Your task to perform on an android device: turn pop-ups off in chrome Image 0: 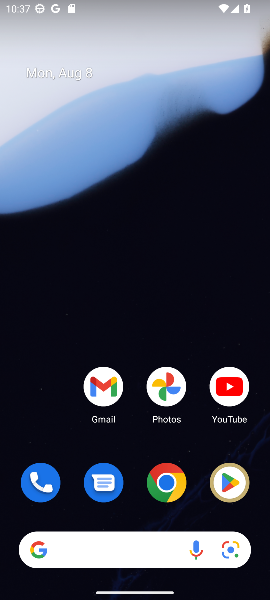
Step 0: click (157, 493)
Your task to perform on an android device: turn pop-ups off in chrome Image 1: 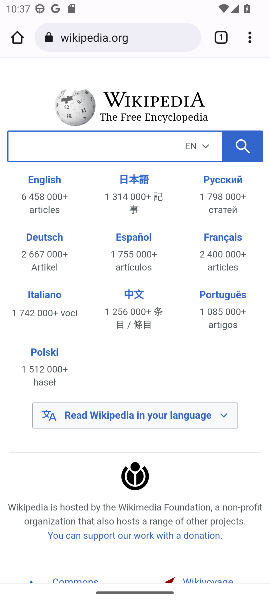
Step 1: click (247, 37)
Your task to perform on an android device: turn pop-ups off in chrome Image 2: 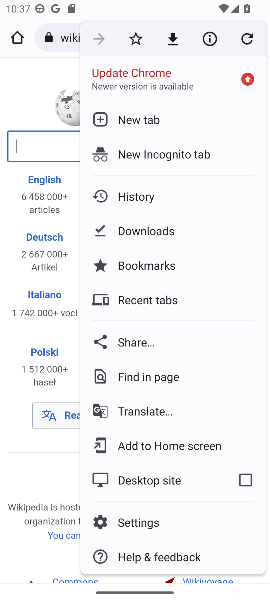
Step 2: click (134, 517)
Your task to perform on an android device: turn pop-ups off in chrome Image 3: 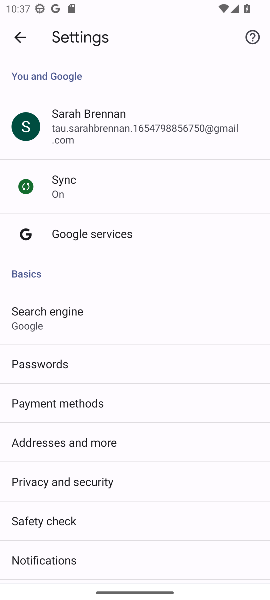
Step 3: drag from (106, 512) to (104, 279)
Your task to perform on an android device: turn pop-ups off in chrome Image 4: 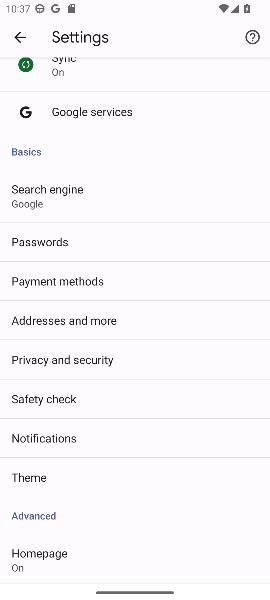
Step 4: drag from (83, 527) to (87, 159)
Your task to perform on an android device: turn pop-ups off in chrome Image 5: 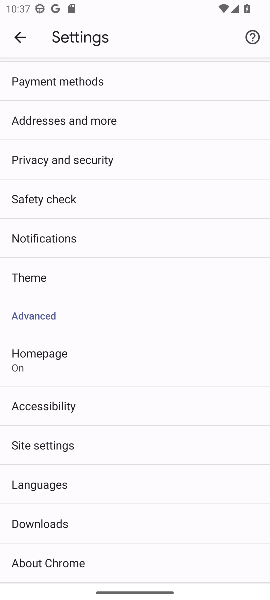
Step 5: click (61, 448)
Your task to perform on an android device: turn pop-ups off in chrome Image 6: 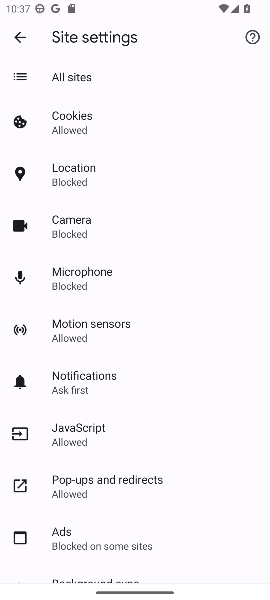
Step 6: click (90, 481)
Your task to perform on an android device: turn pop-ups off in chrome Image 7: 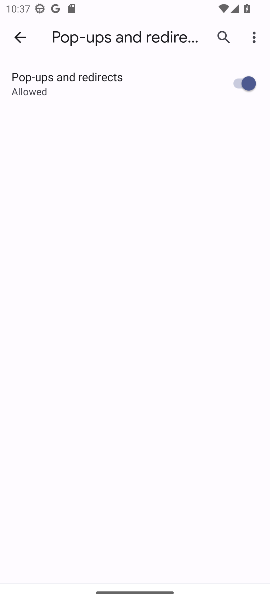
Step 7: click (242, 87)
Your task to perform on an android device: turn pop-ups off in chrome Image 8: 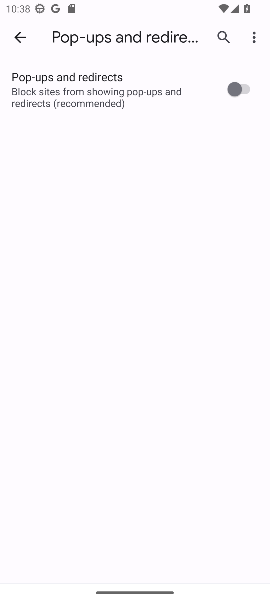
Step 8: task complete